Your task to perform on an android device: When is my next appointment? Image 0: 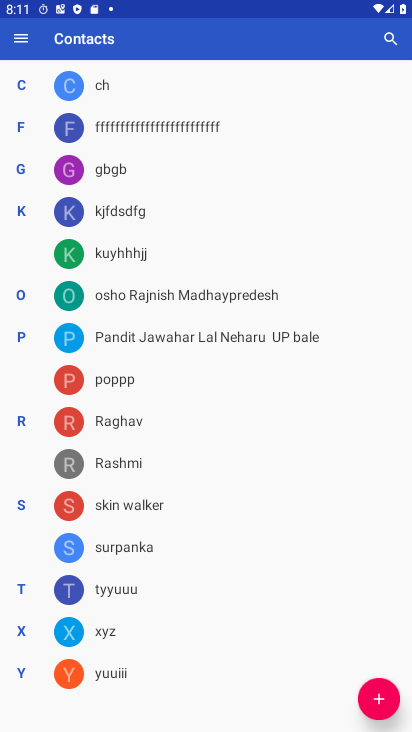
Step 0: press home button
Your task to perform on an android device: When is my next appointment? Image 1: 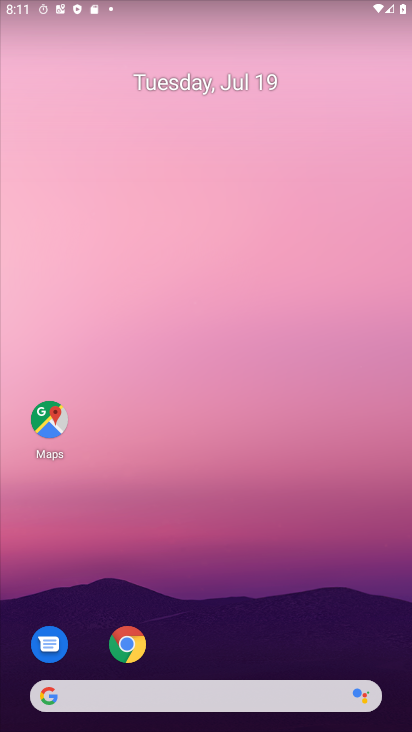
Step 1: drag from (19, 682) to (255, 90)
Your task to perform on an android device: When is my next appointment? Image 2: 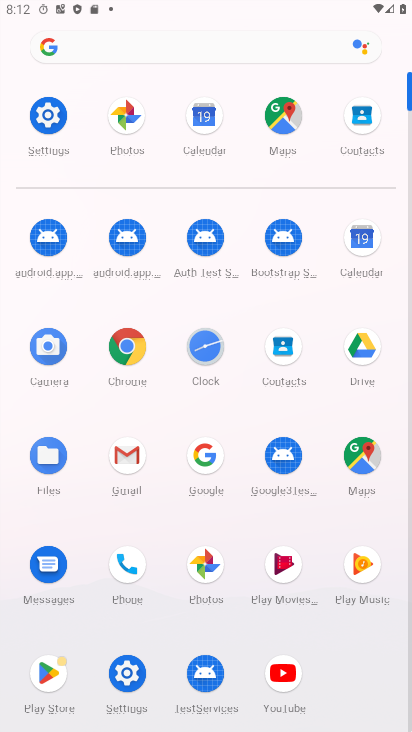
Step 2: click (360, 242)
Your task to perform on an android device: When is my next appointment? Image 3: 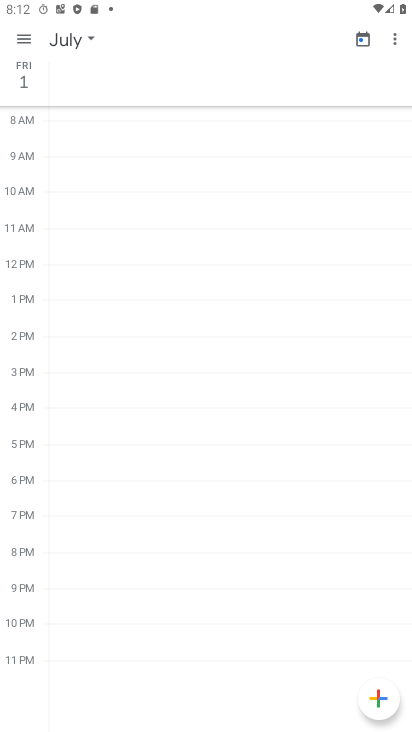
Step 3: click (77, 36)
Your task to perform on an android device: When is my next appointment? Image 4: 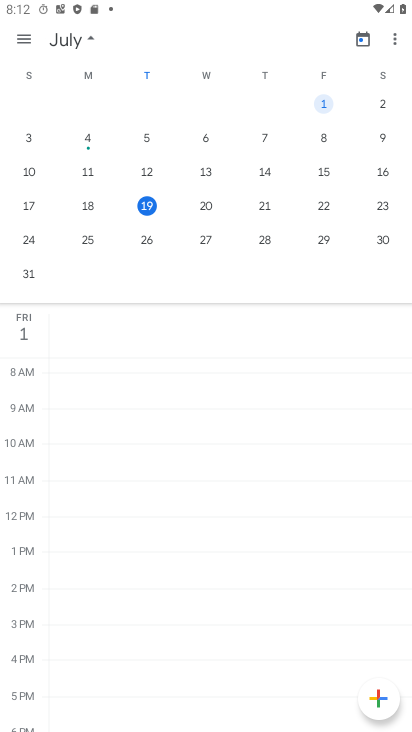
Step 4: click (22, 42)
Your task to perform on an android device: When is my next appointment? Image 5: 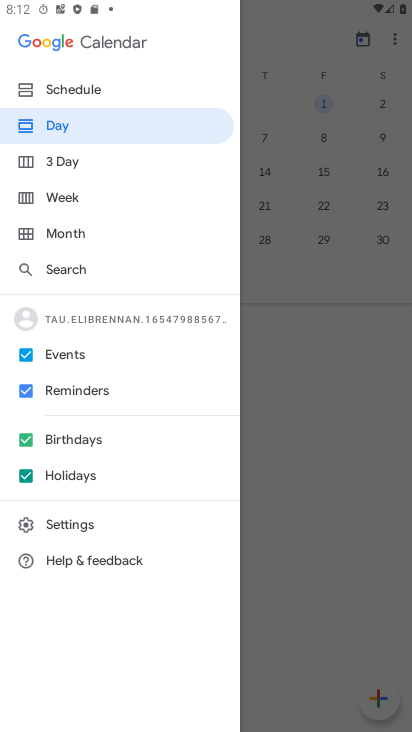
Step 5: click (112, 86)
Your task to perform on an android device: When is my next appointment? Image 6: 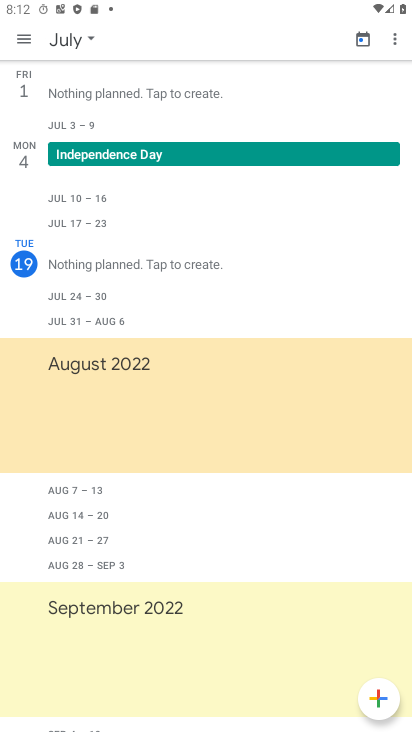
Step 6: click (96, 39)
Your task to perform on an android device: When is my next appointment? Image 7: 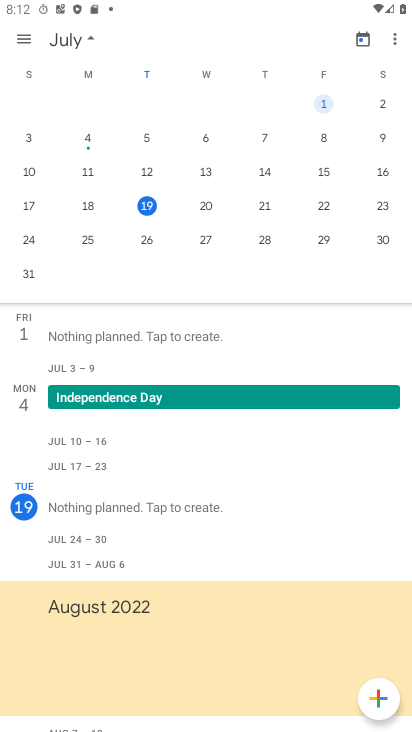
Step 7: task complete